Your task to perform on an android device: refresh tabs in the chrome app Image 0: 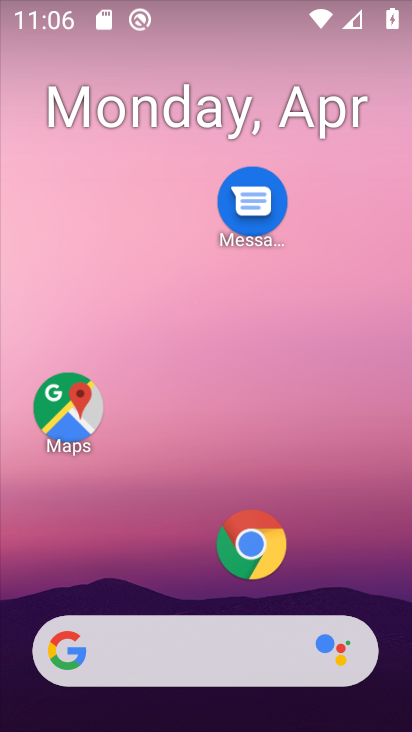
Step 0: click (255, 549)
Your task to perform on an android device: refresh tabs in the chrome app Image 1: 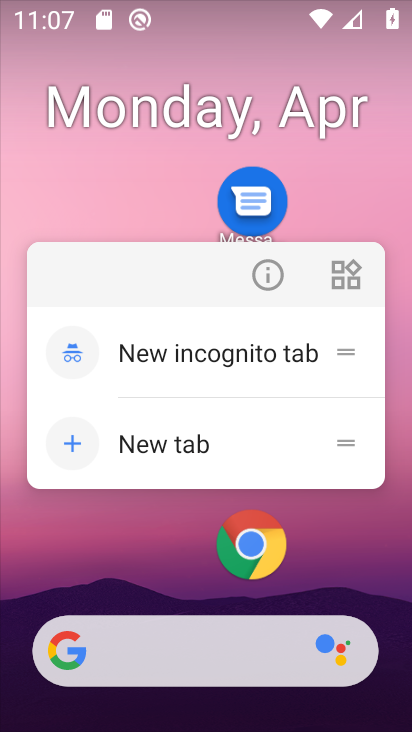
Step 1: click (181, 549)
Your task to perform on an android device: refresh tabs in the chrome app Image 2: 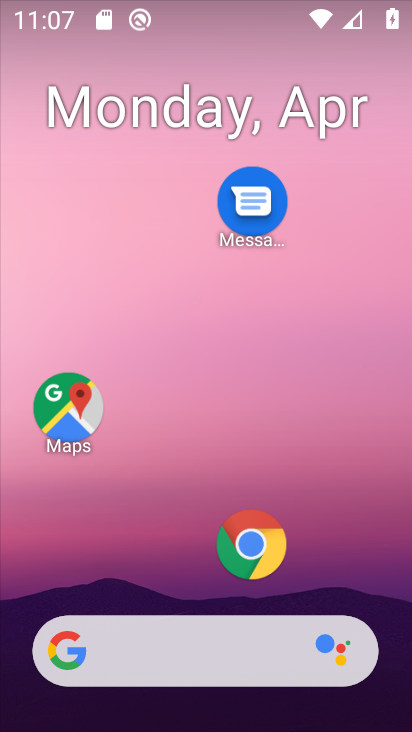
Step 2: drag from (167, 604) to (196, 55)
Your task to perform on an android device: refresh tabs in the chrome app Image 3: 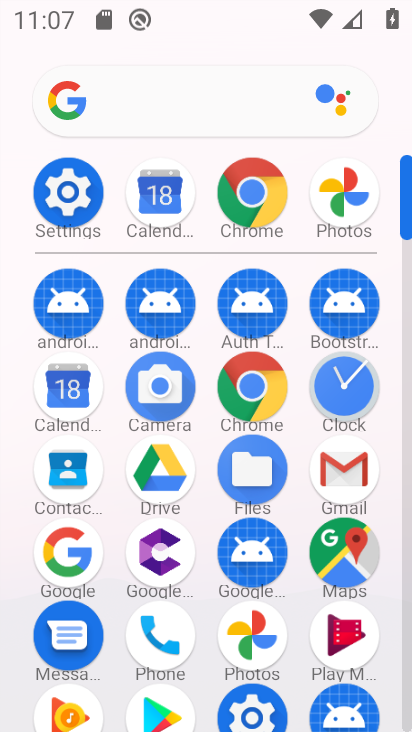
Step 3: click (254, 379)
Your task to perform on an android device: refresh tabs in the chrome app Image 4: 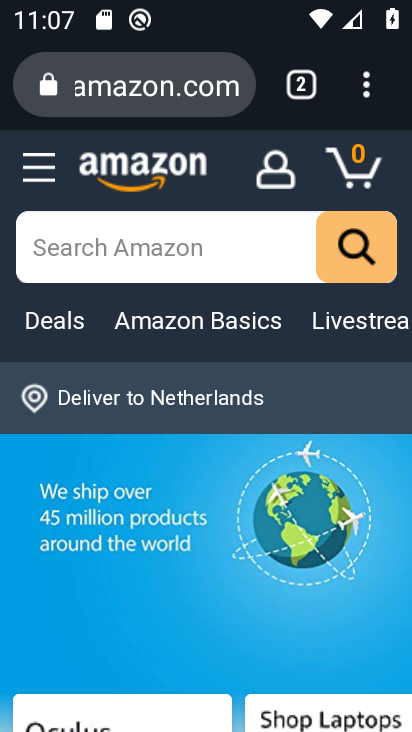
Step 4: click (368, 76)
Your task to perform on an android device: refresh tabs in the chrome app Image 5: 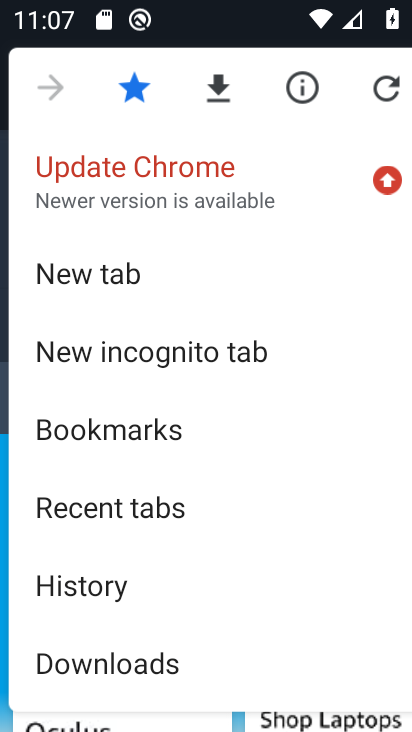
Step 5: click (202, 507)
Your task to perform on an android device: refresh tabs in the chrome app Image 6: 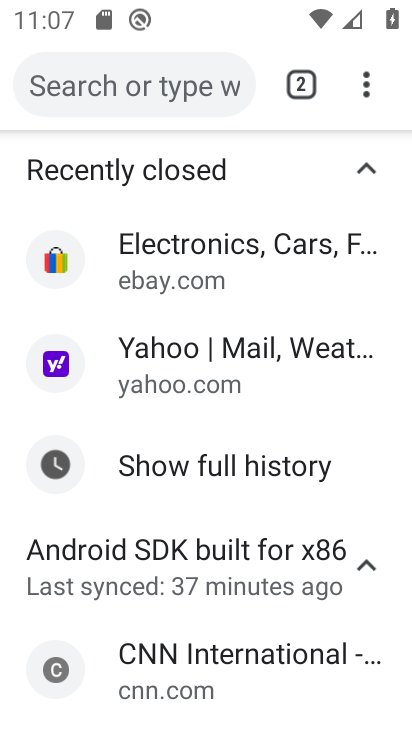
Step 6: task complete